Your task to perform on an android device: Open notification settings Image 0: 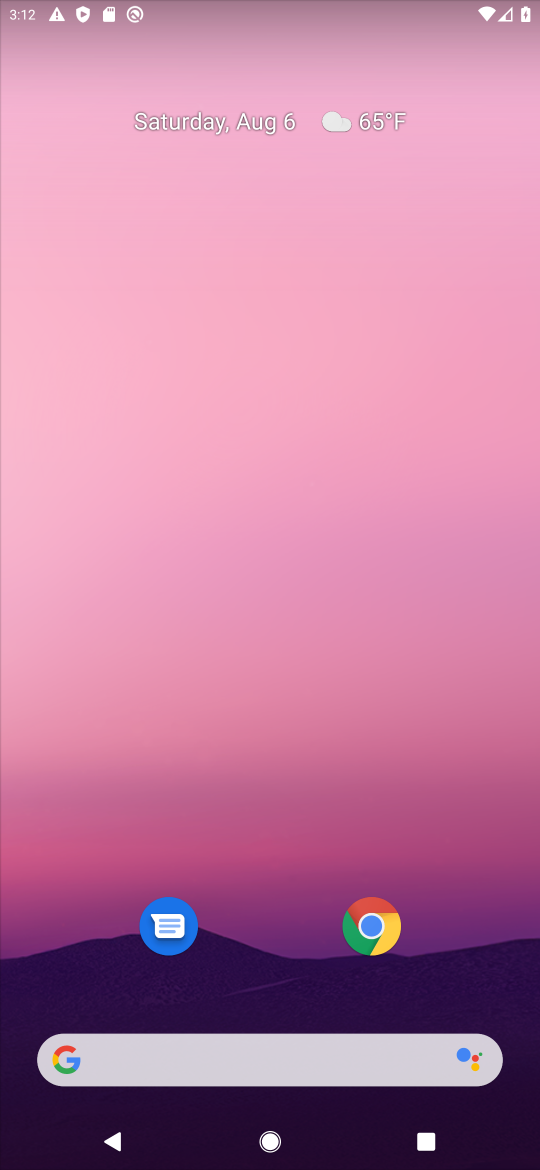
Step 0: drag from (261, 647) to (284, 271)
Your task to perform on an android device: Open notification settings Image 1: 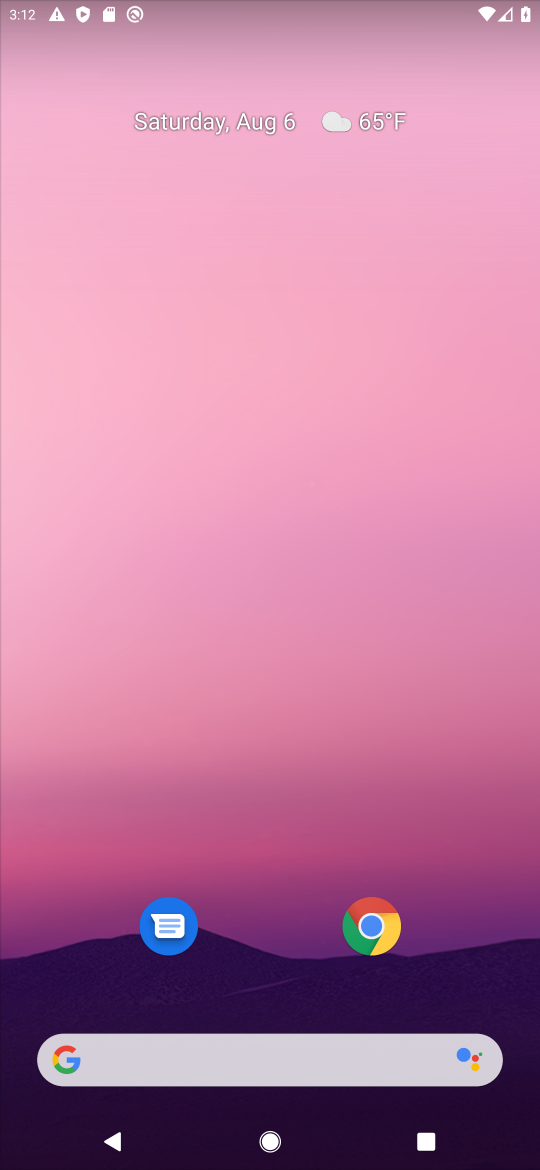
Step 1: drag from (261, 630) to (261, 202)
Your task to perform on an android device: Open notification settings Image 2: 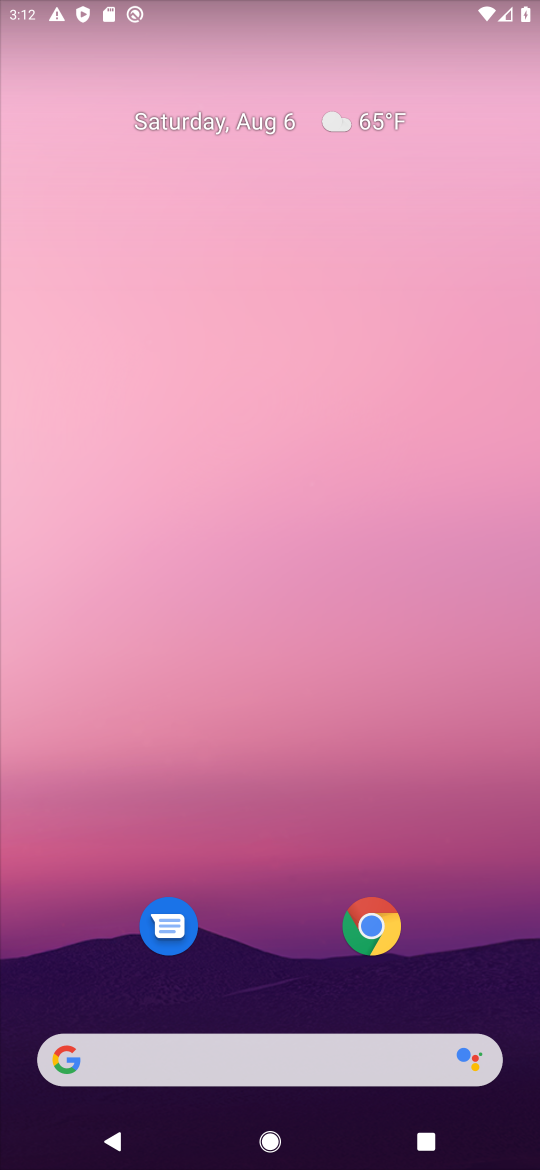
Step 2: drag from (258, 917) to (234, 216)
Your task to perform on an android device: Open notification settings Image 3: 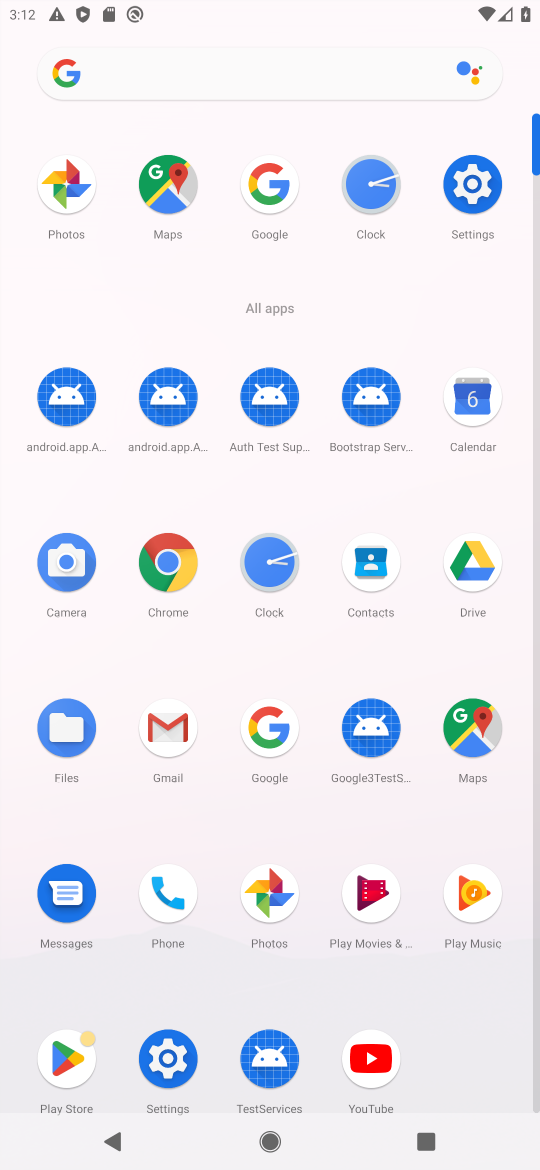
Step 3: click (454, 180)
Your task to perform on an android device: Open notification settings Image 4: 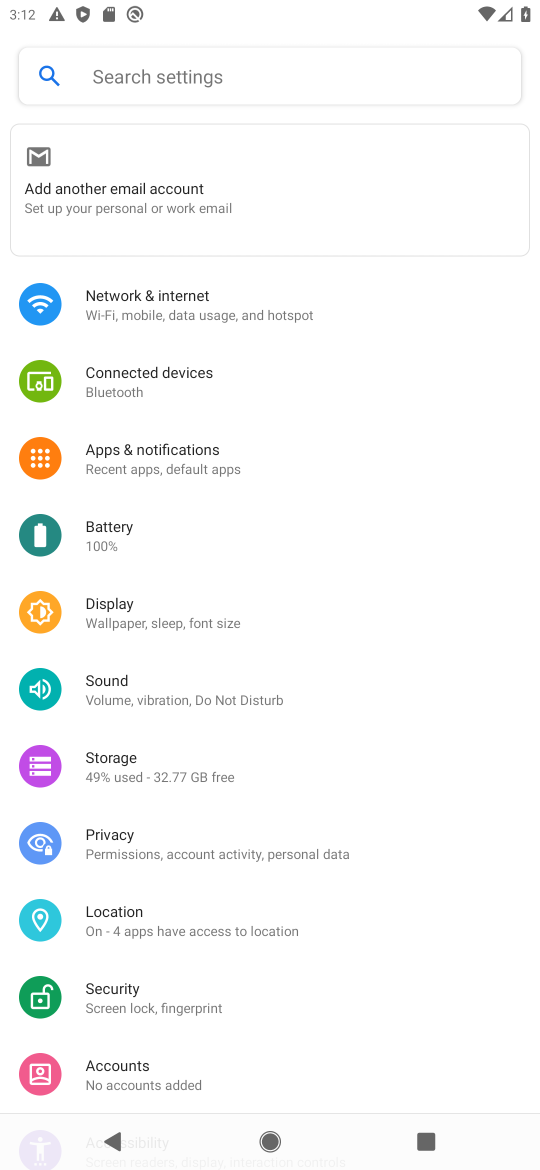
Step 4: click (180, 459)
Your task to perform on an android device: Open notification settings Image 5: 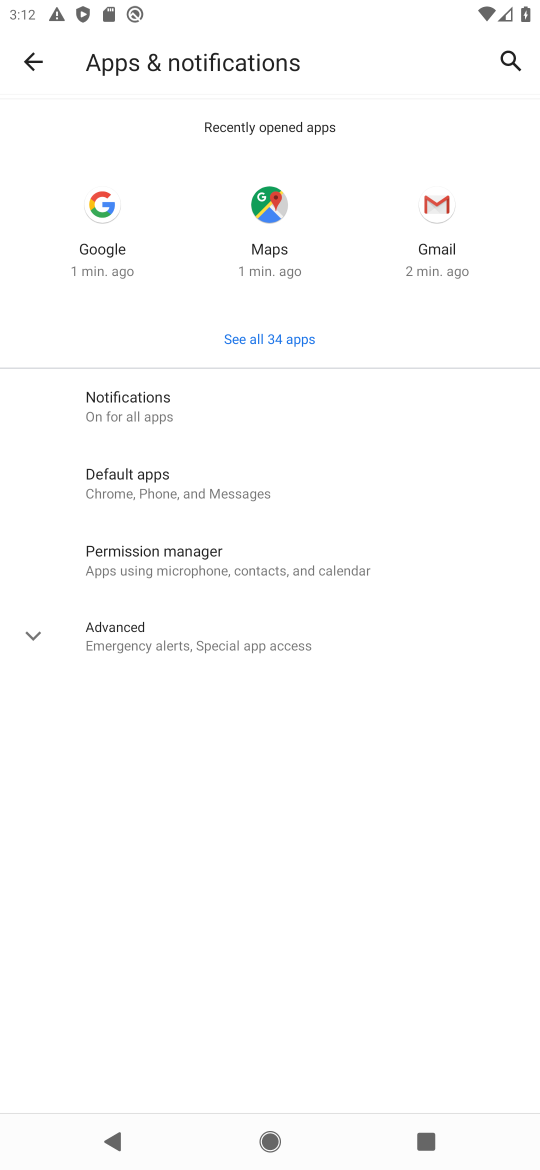
Step 5: click (169, 425)
Your task to perform on an android device: Open notification settings Image 6: 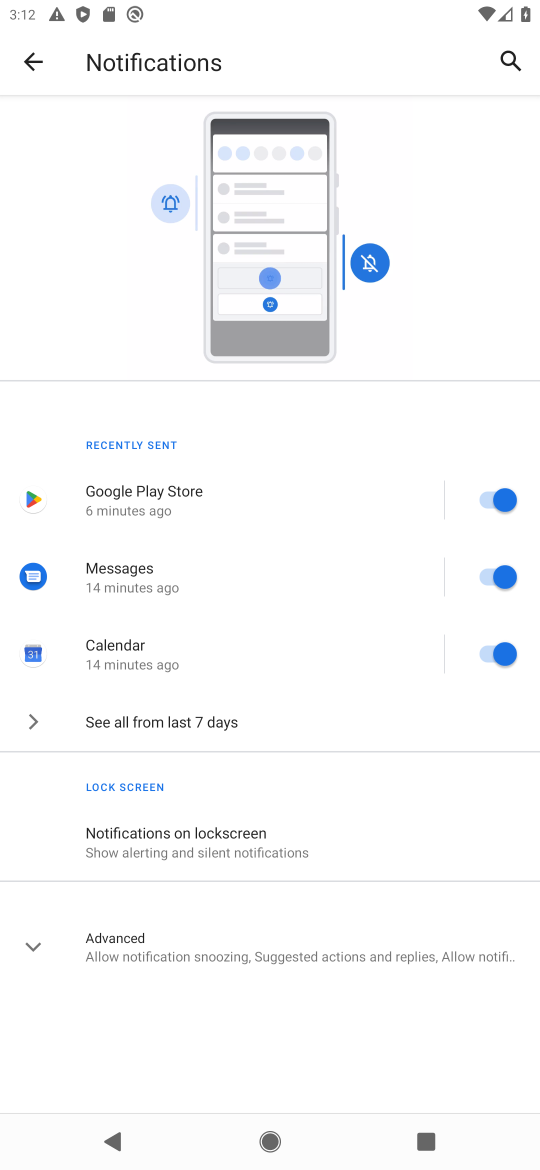
Step 6: task complete